Your task to perform on an android device: allow cookies in the chrome app Image 0: 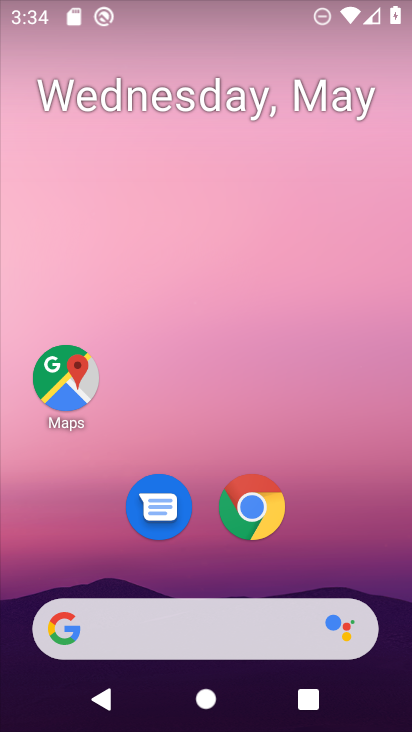
Step 0: click (268, 519)
Your task to perform on an android device: allow cookies in the chrome app Image 1: 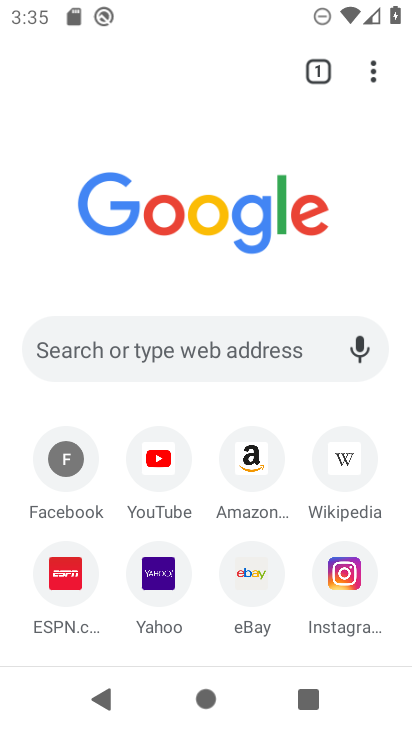
Step 1: drag from (368, 72) to (107, 514)
Your task to perform on an android device: allow cookies in the chrome app Image 2: 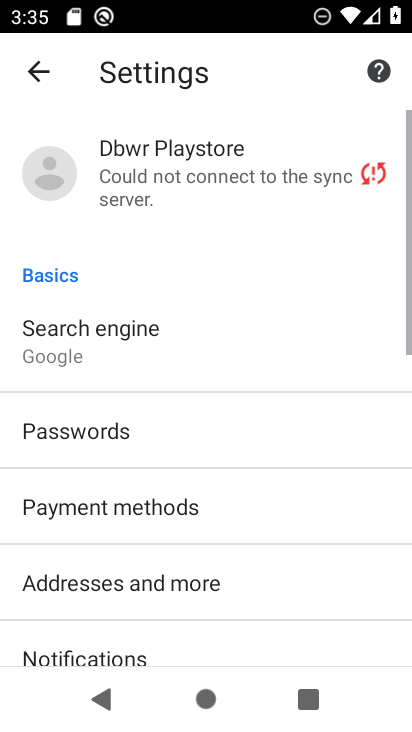
Step 2: drag from (159, 604) to (301, 82)
Your task to perform on an android device: allow cookies in the chrome app Image 3: 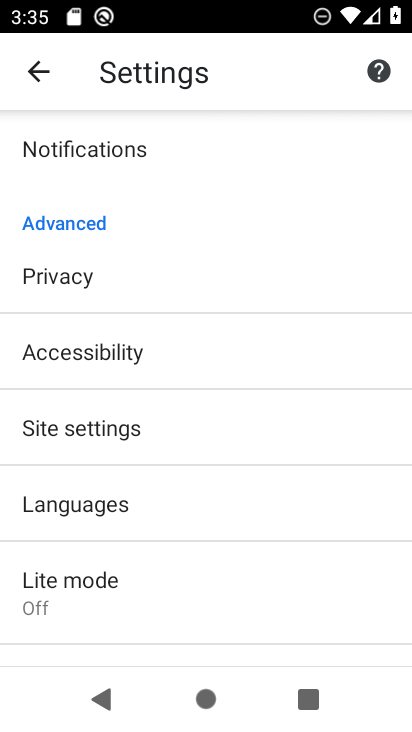
Step 3: click (72, 414)
Your task to perform on an android device: allow cookies in the chrome app Image 4: 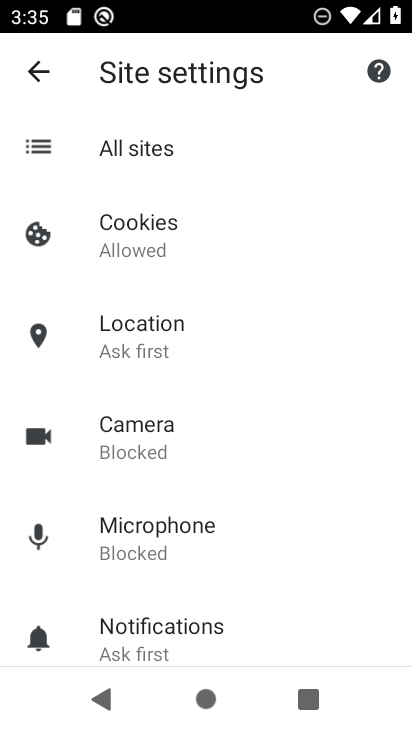
Step 4: click (140, 248)
Your task to perform on an android device: allow cookies in the chrome app Image 5: 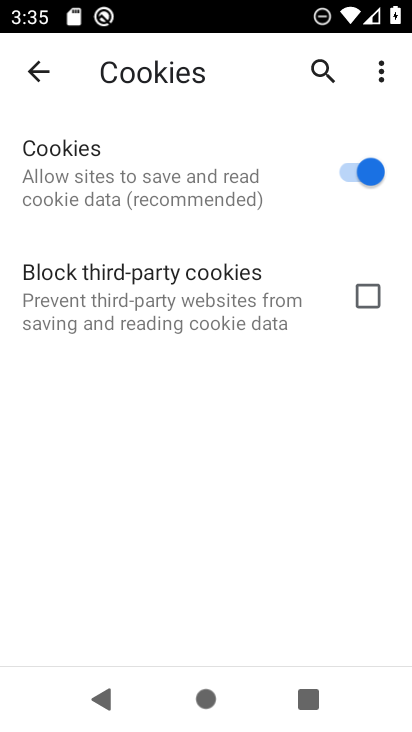
Step 5: task complete